Your task to perform on an android device: Go to ESPN.com Image 0: 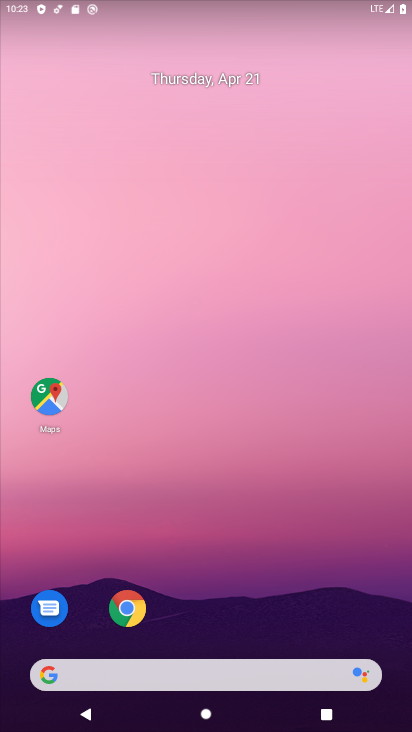
Step 0: click (129, 607)
Your task to perform on an android device: Go to ESPN.com Image 1: 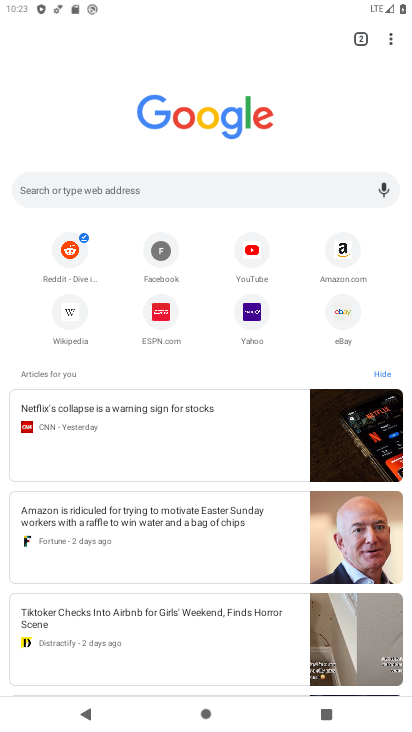
Step 1: click (159, 309)
Your task to perform on an android device: Go to ESPN.com Image 2: 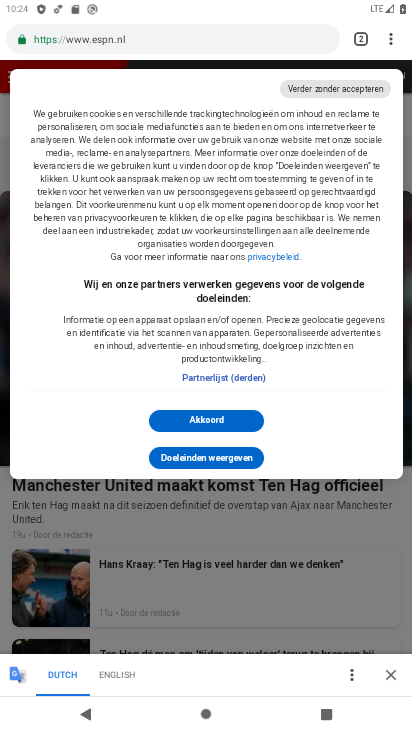
Step 2: task complete